Your task to perform on an android device: Add "bose soundlink mini" to the cart on bestbuy.com, then select checkout. Image 0: 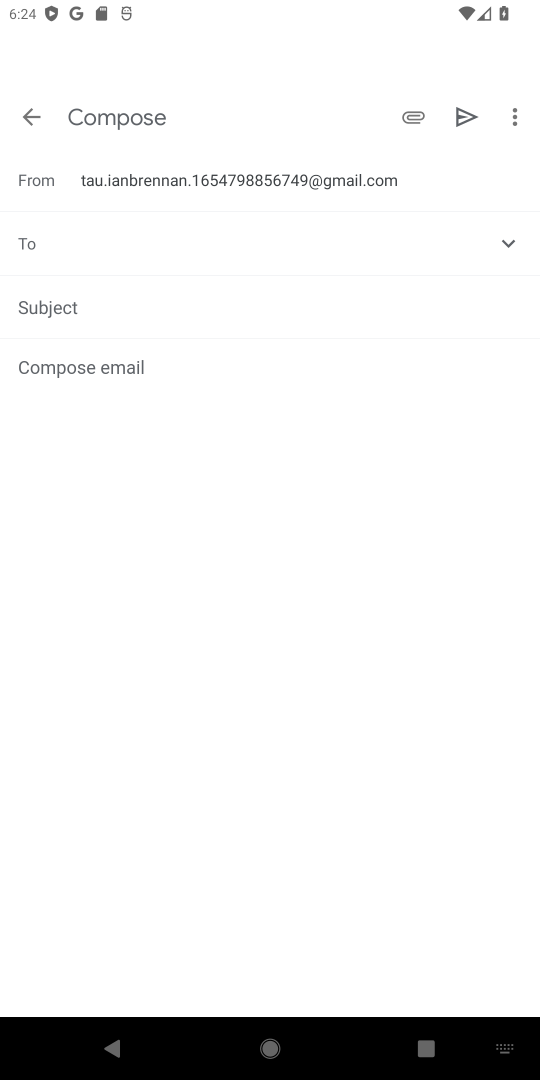
Step 0: press home button
Your task to perform on an android device: Add "bose soundlink mini" to the cart on bestbuy.com, then select checkout. Image 1: 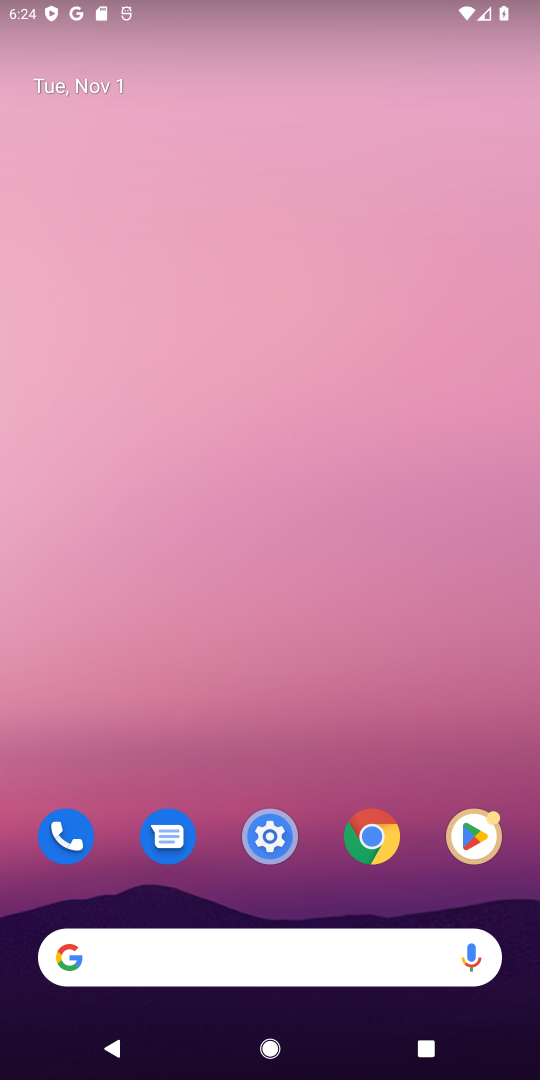
Step 1: drag from (305, 796) to (291, 17)
Your task to perform on an android device: Add "bose soundlink mini" to the cart on bestbuy.com, then select checkout. Image 2: 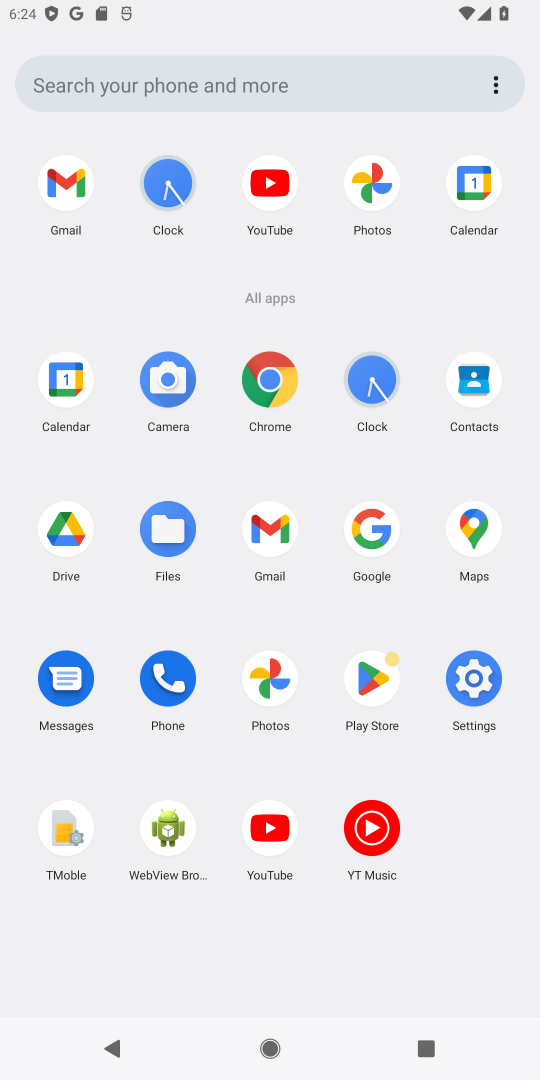
Step 2: click (264, 375)
Your task to perform on an android device: Add "bose soundlink mini" to the cart on bestbuy.com, then select checkout. Image 3: 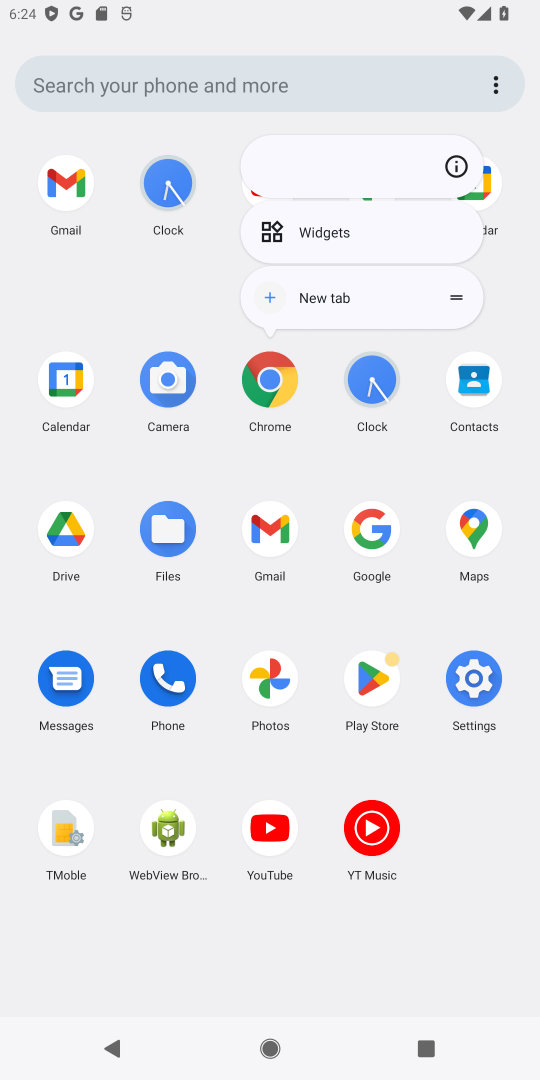
Step 3: click (262, 368)
Your task to perform on an android device: Add "bose soundlink mini" to the cart on bestbuy.com, then select checkout. Image 4: 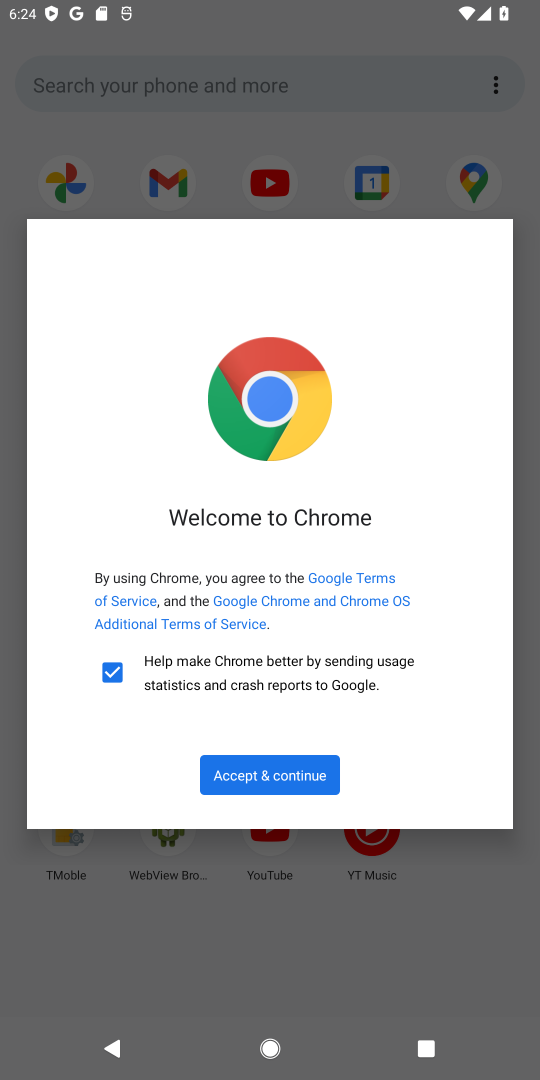
Step 4: click (262, 770)
Your task to perform on an android device: Add "bose soundlink mini" to the cart on bestbuy.com, then select checkout. Image 5: 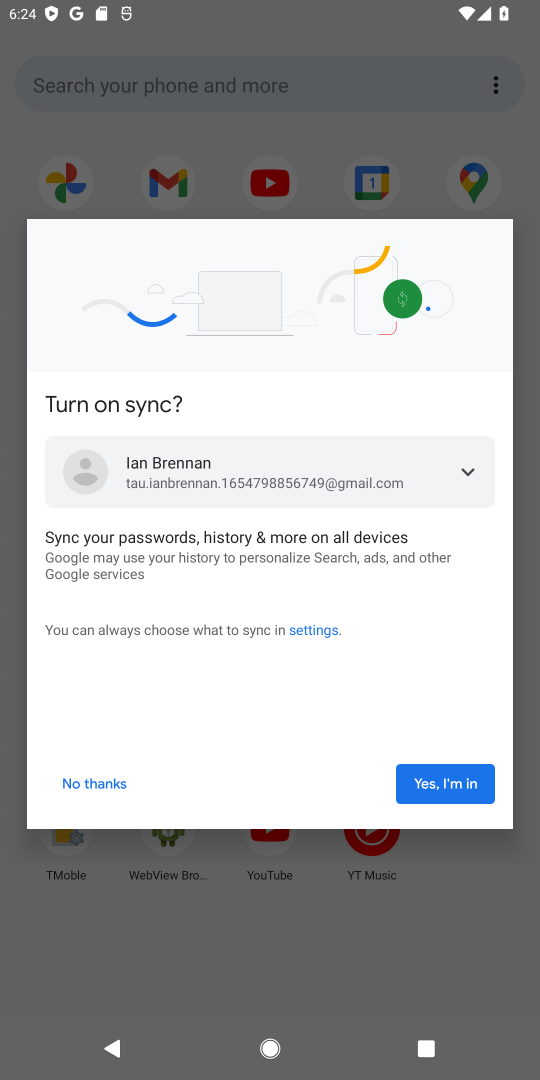
Step 5: click (444, 778)
Your task to perform on an android device: Add "bose soundlink mini" to the cart on bestbuy.com, then select checkout. Image 6: 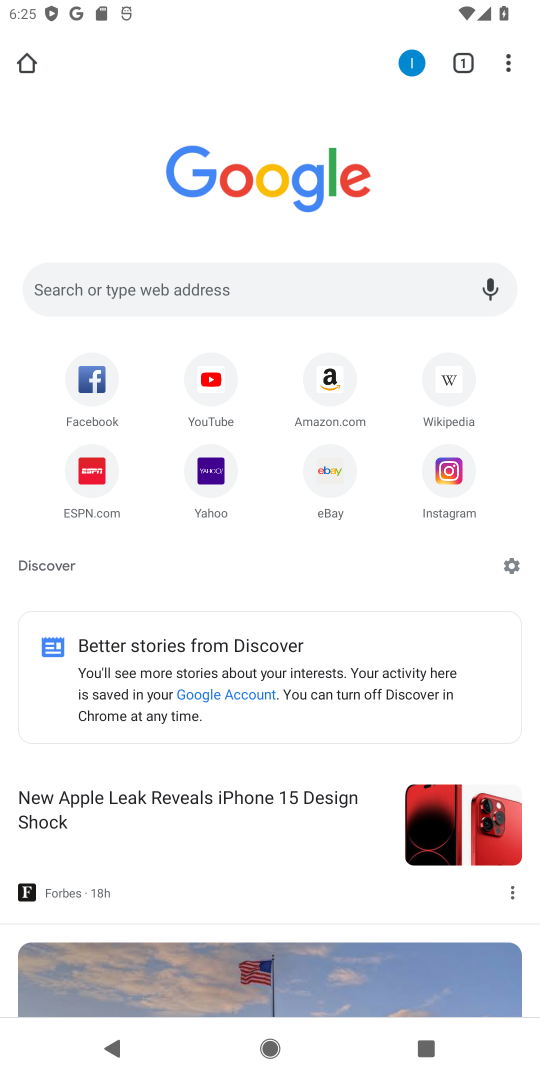
Step 6: click (146, 281)
Your task to perform on an android device: Add "bose soundlink mini" to the cart on bestbuy.com, then select checkout. Image 7: 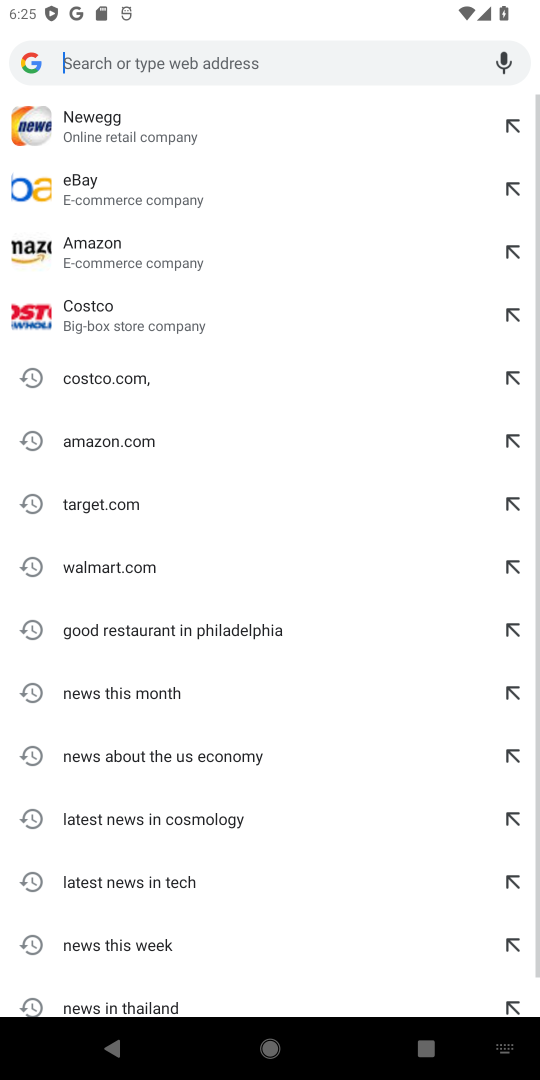
Step 7: type "bestbuy.com"
Your task to perform on an android device: Add "bose soundlink mini" to the cart on bestbuy.com, then select checkout. Image 8: 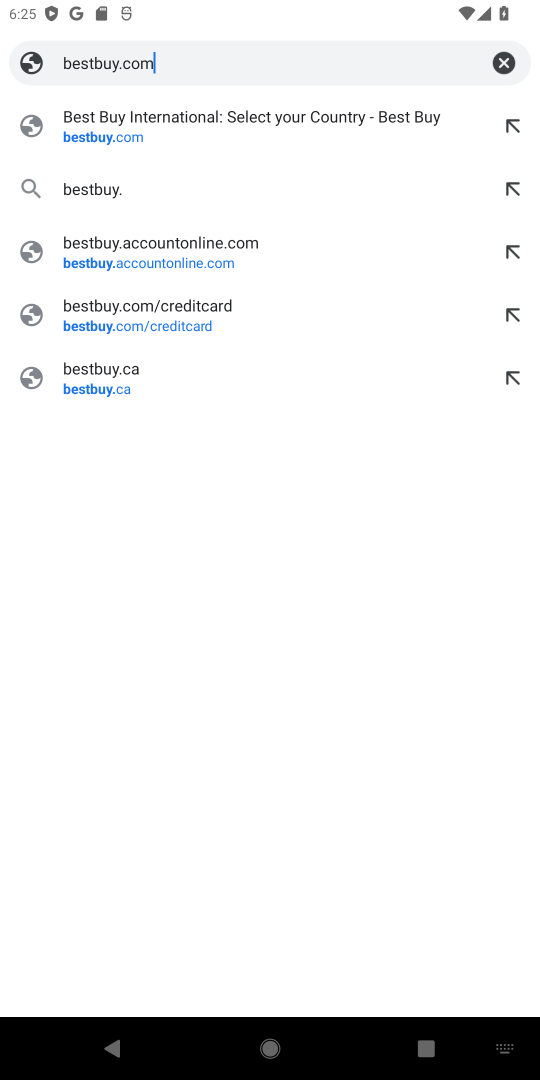
Step 8: type ""
Your task to perform on an android device: Add "bose soundlink mini" to the cart on bestbuy.com, then select checkout. Image 9: 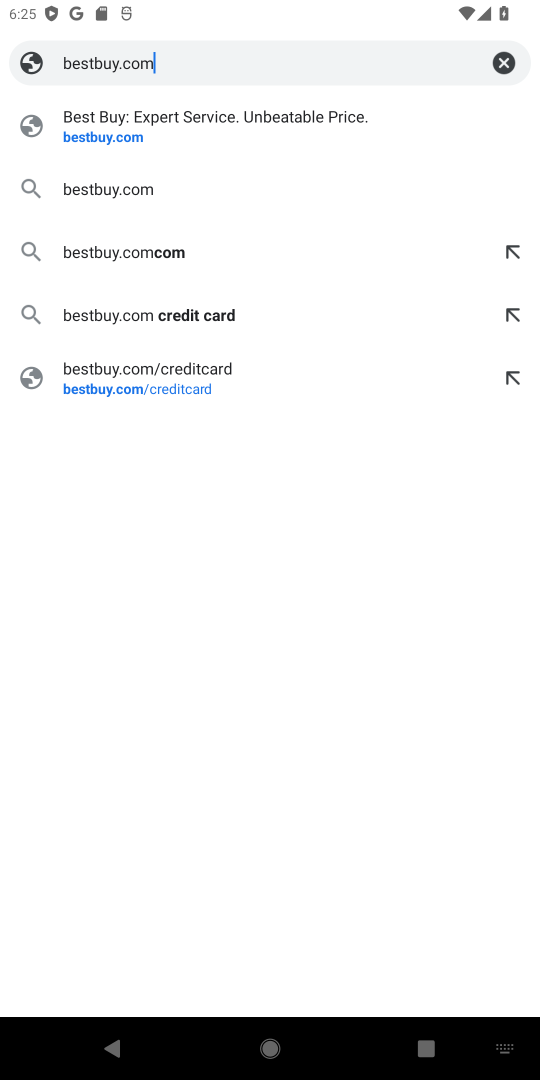
Step 9: click (182, 138)
Your task to perform on an android device: Add "bose soundlink mini" to the cart on bestbuy.com, then select checkout. Image 10: 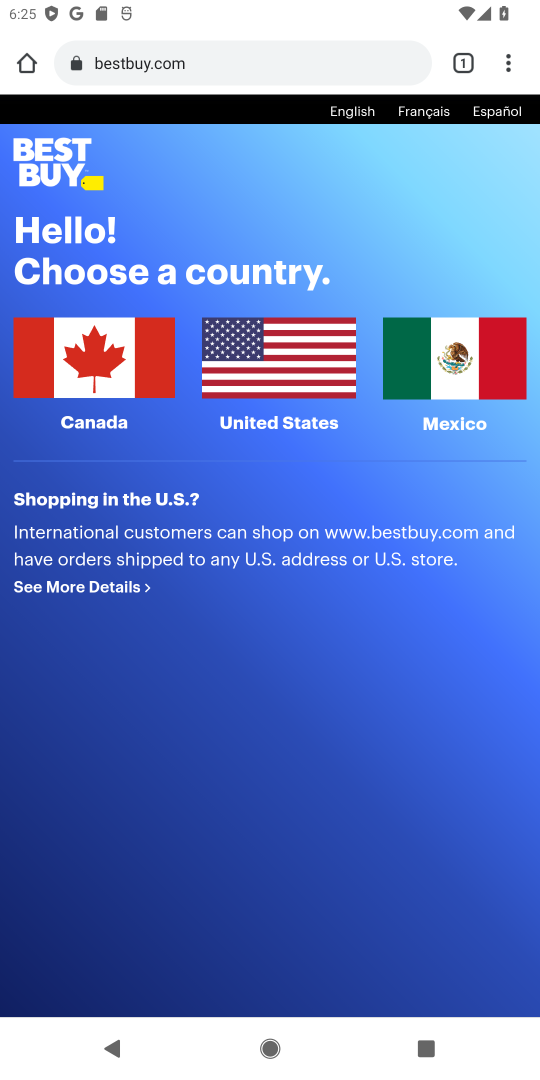
Step 10: click (269, 358)
Your task to perform on an android device: Add "bose soundlink mini" to the cart on bestbuy.com, then select checkout. Image 11: 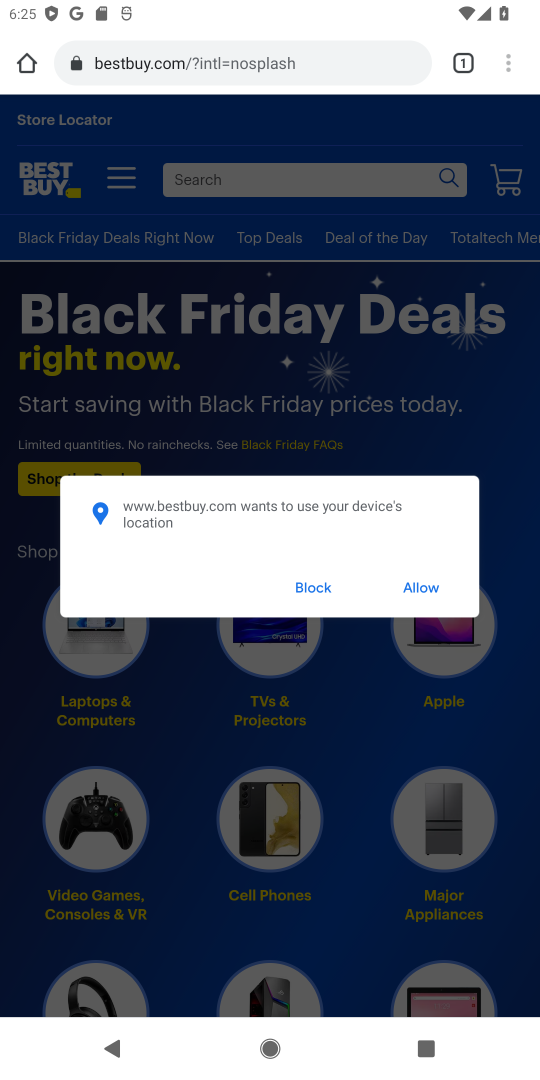
Step 11: click (422, 580)
Your task to perform on an android device: Add "bose soundlink mini" to the cart on bestbuy.com, then select checkout. Image 12: 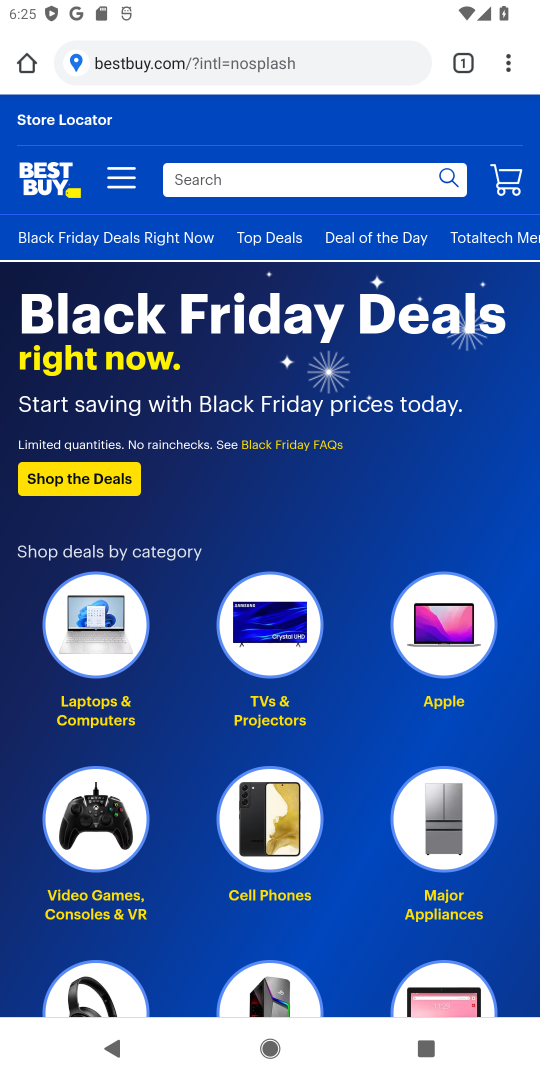
Step 12: click (243, 180)
Your task to perform on an android device: Add "bose soundlink mini" to the cart on bestbuy.com, then select checkout. Image 13: 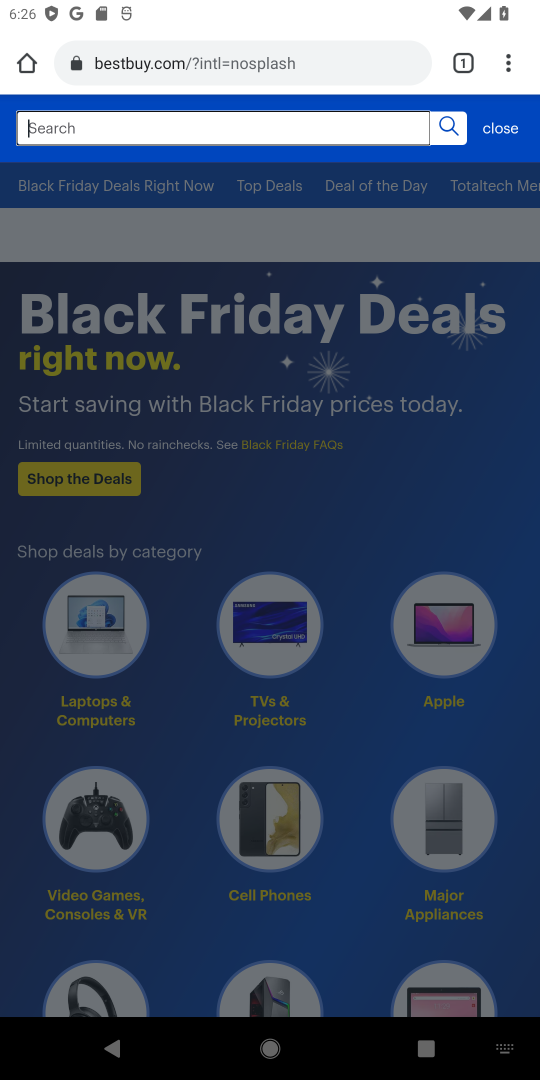
Step 13: type "bose soundlink mini"
Your task to perform on an android device: Add "bose soundlink mini" to the cart on bestbuy.com, then select checkout. Image 14: 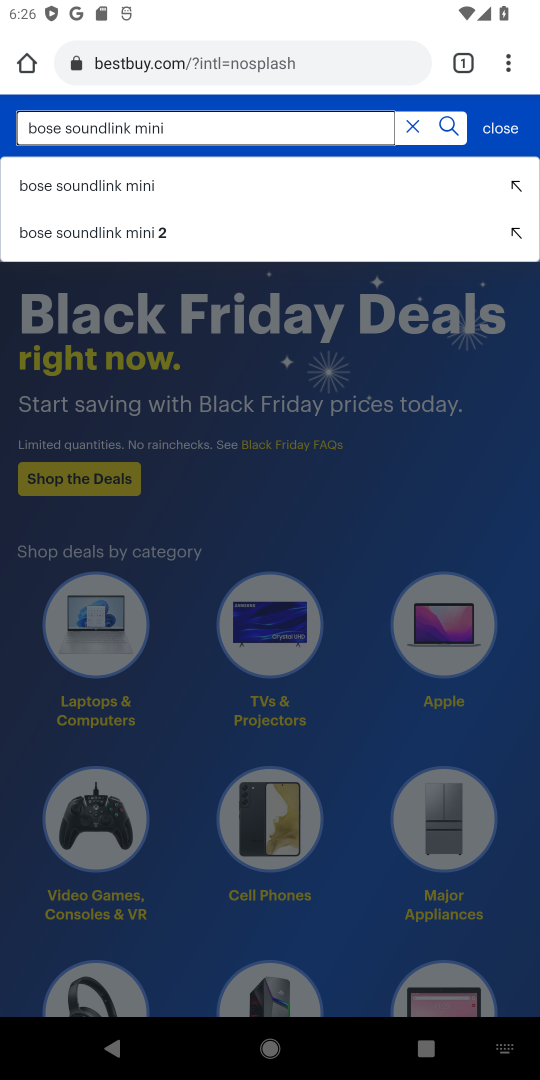
Step 14: click (161, 188)
Your task to perform on an android device: Add "bose soundlink mini" to the cart on bestbuy.com, then select checkout. Image 15: 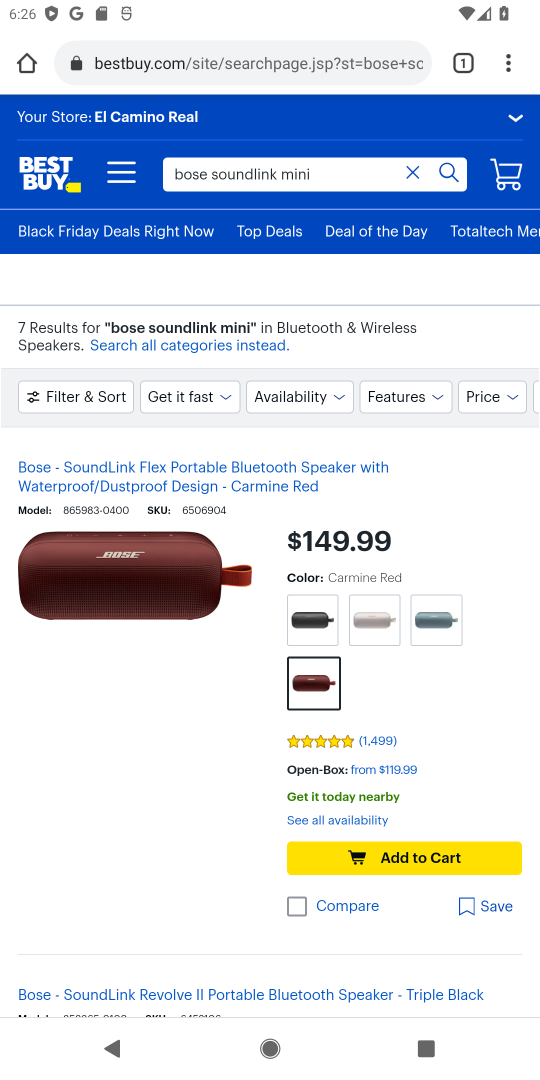
Step 15: drag from (235, 779) to (235, 442)
Your task to perform on an android device: Add "bose soundlink mini" to the cart on bestbuy.com, then select checkout. Image 16: 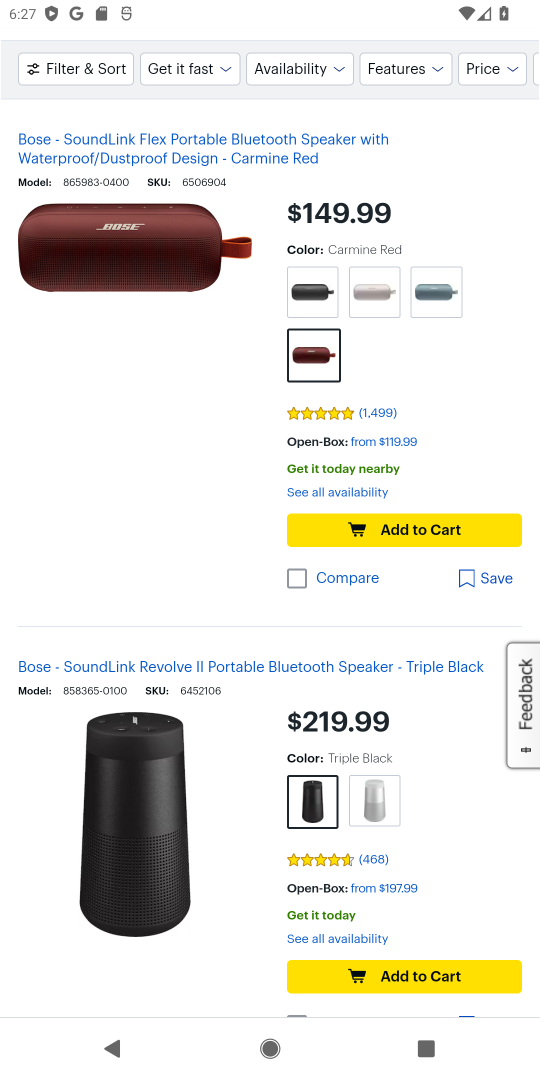
Step 16: click (406, 531)
Your task to perform on an android device: Add "bose soundlink mini" to the cart on bestbuy.com, then select checkout. Image 17: 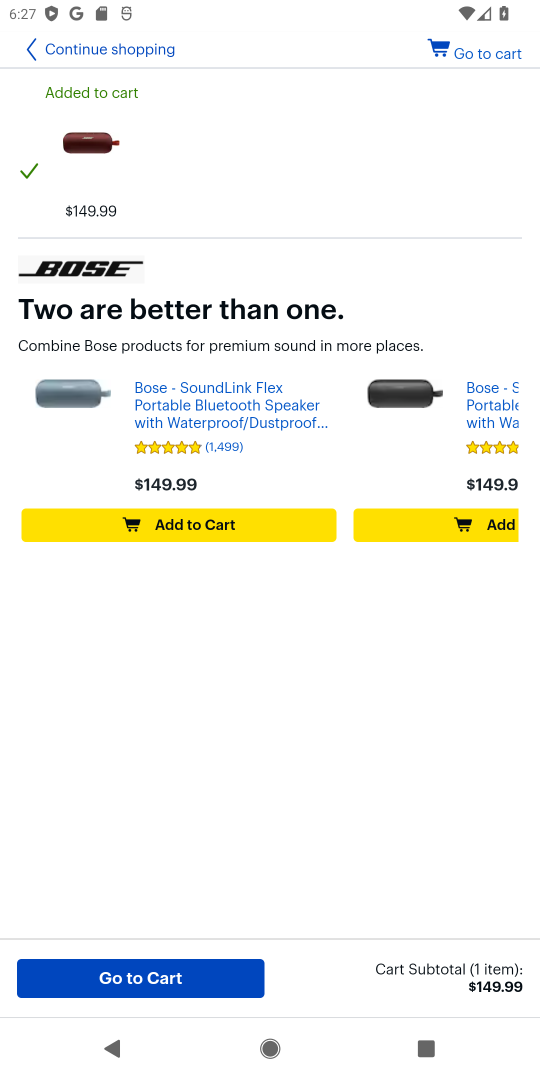
Step 17: click (138, 981)
Your task to perform on an android device: Add "bose soundlink mini" to the cart on bestbuy.com, then select checkout. Image 18: 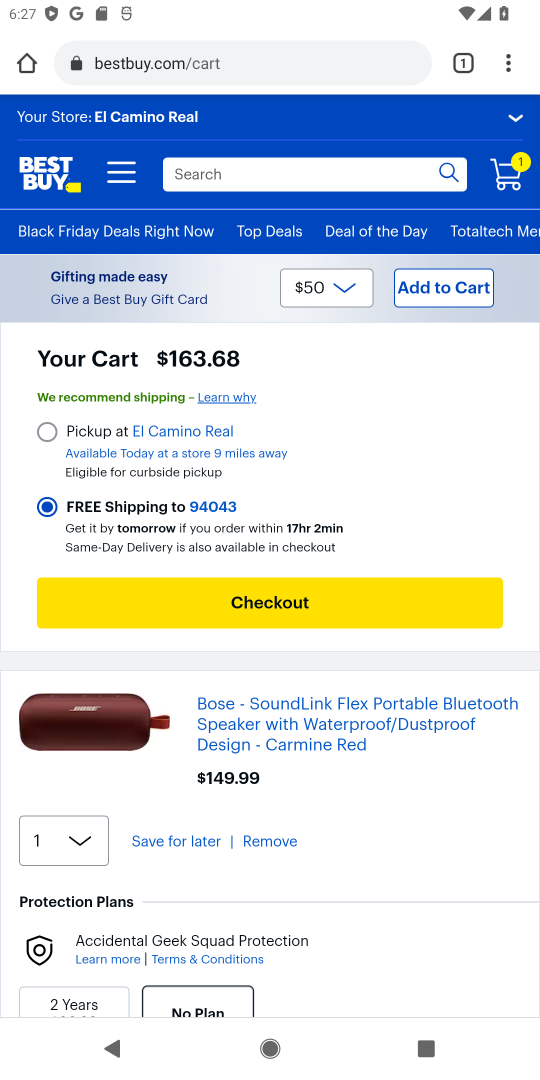
Step 18: click (508, 172)
Your task to perform on an android device: Add "bose soundlink mini" to the cart on bestbuy.com, then select checkout. Image 19: 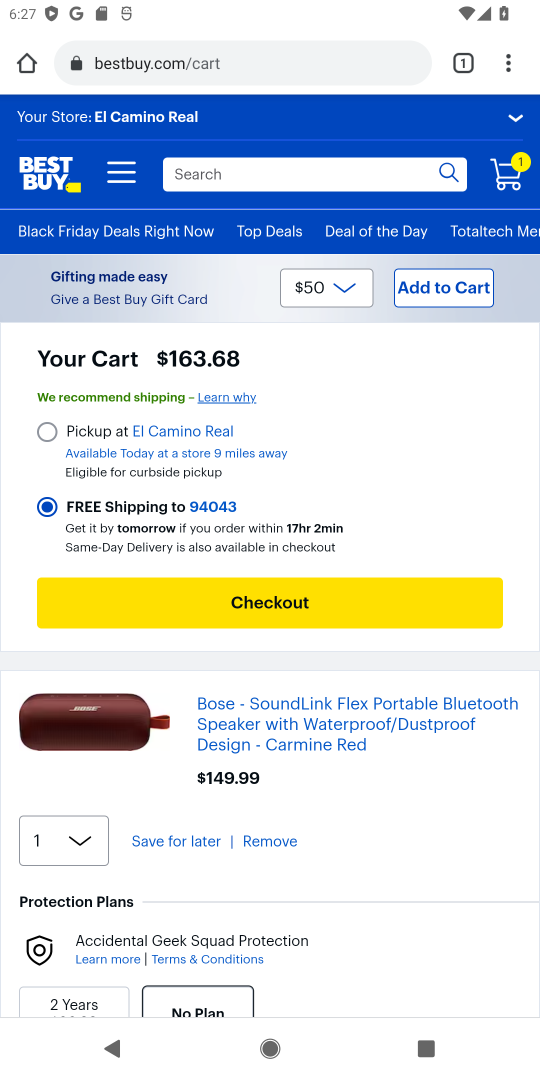
Step 19: click (259, 601)
Your task to perform on an android device: Add "bose soundlink mini" to the cart on bestbuy.com, then select checkout. Image 20: 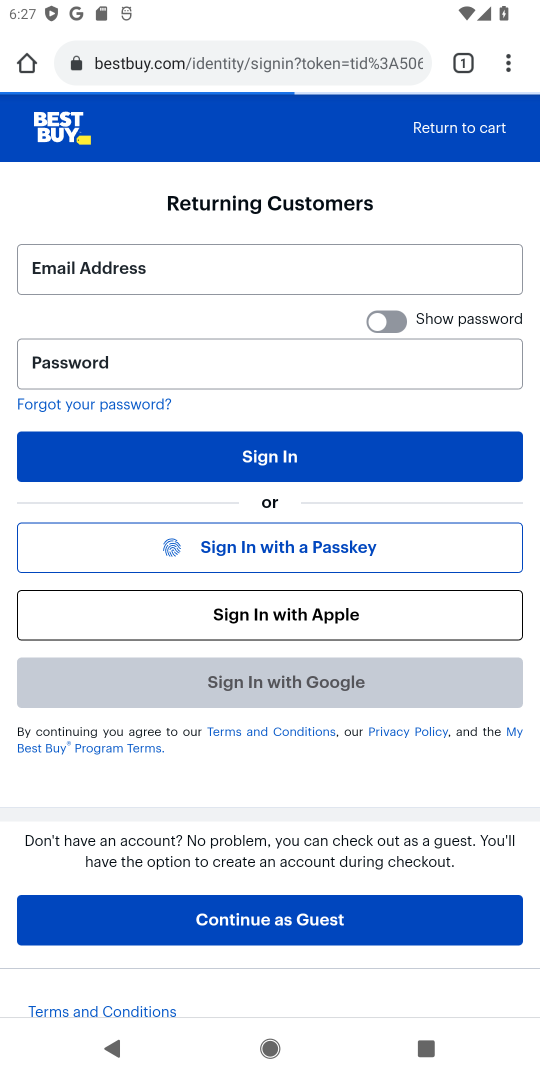
Step 20: task complete